Your task to perform on an android device: Open Chrome and go to settings Image 0: 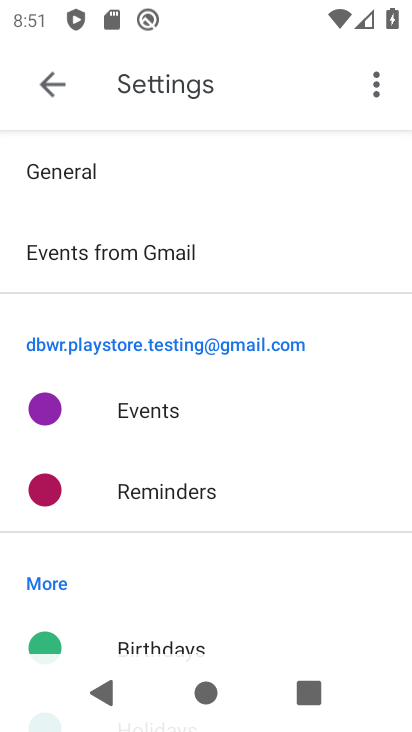
Step 0: press home button
Your task to perform on an android device: Open Chrome and go to settings Image 1: 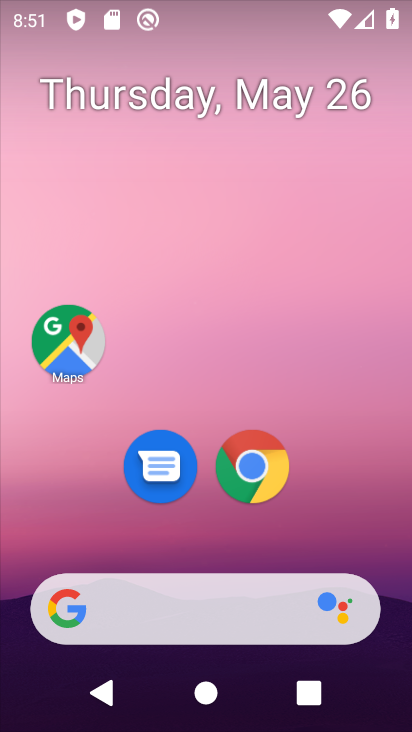
Step 1: click (255, 474)
Your task to perform on an android device: Open Chrome and go to settings Image 2: 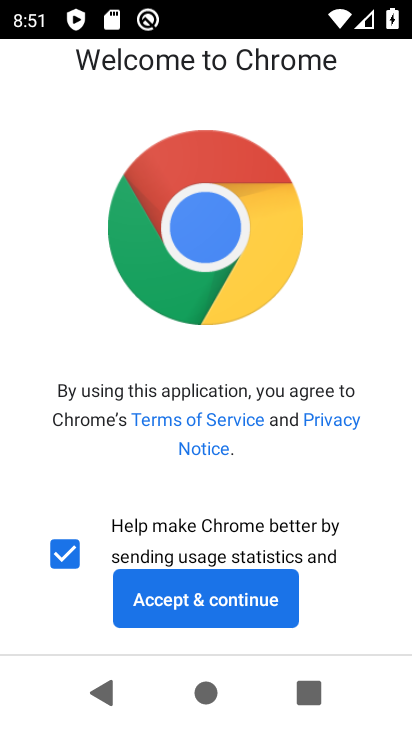
Step 2: click (231, 600)
Your task to perform on an android device: Open Chrome and go to settings Image 3: 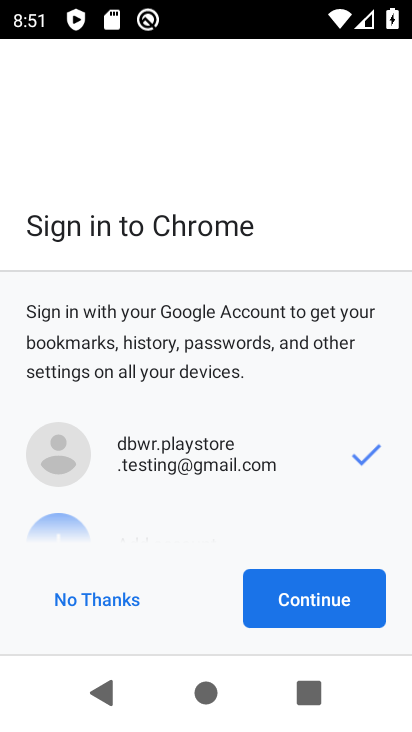
Step 3: click (299, 599)
Your task to perform on an android device: Open Chrome and go to settings Image 4: 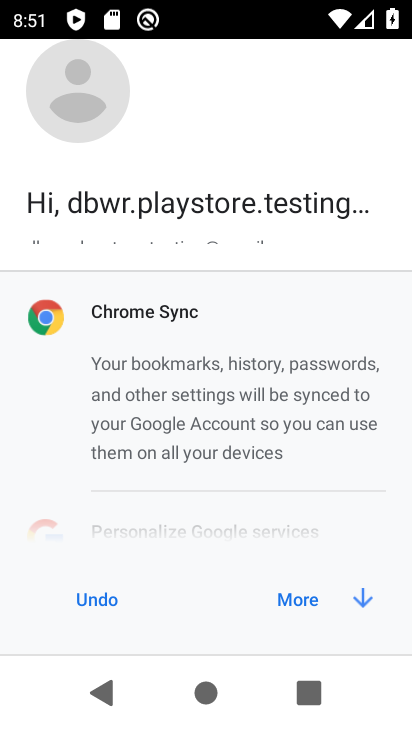
Step 4: click (356, 601)
Your task to perform on an android device: Open Chrome and go to settings Image 5: 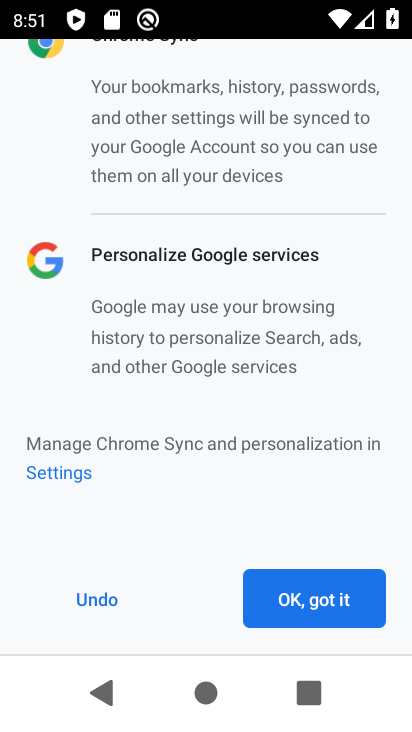
Step 5: click (356, 601)
Your task to perform on an android device: Open Chrome and go to settings Image 6: 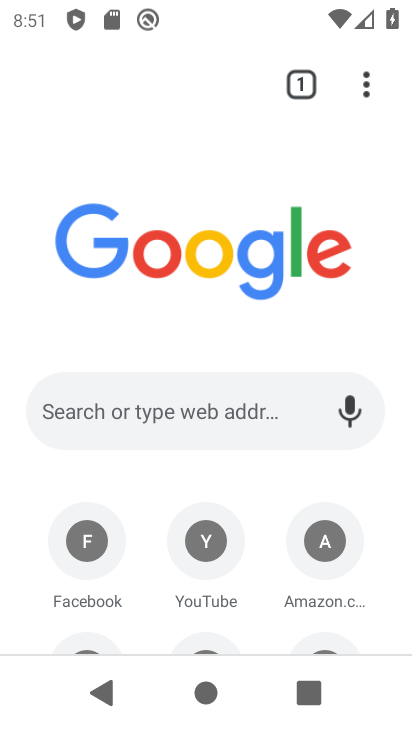
Step 6: click (366, 77)
Your task to perform on an android device: Open Chrome and go to settings Image 7: 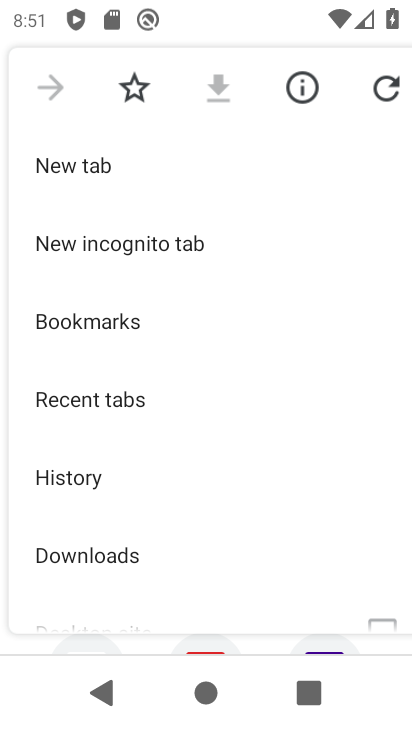
Step 7: drag from (223, 522) to (189, 208)
Your task to perform on an android device: Open Chrome and go to settings Image 8: 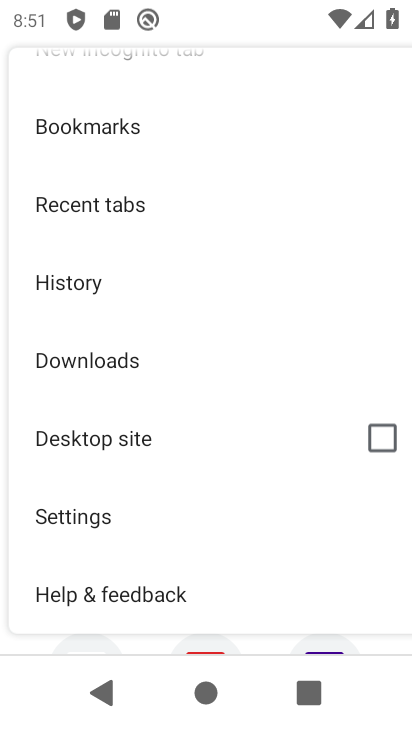
Step 8: click (79, 522)
Your task to perform on an android device: Open Chrome and go to settings Image 9: 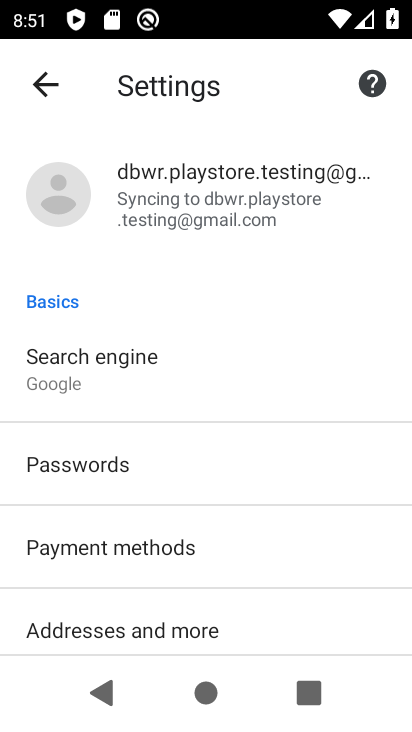
Step 9: task complete